Your task to perform on an android device: Go to internet settings Image 0: 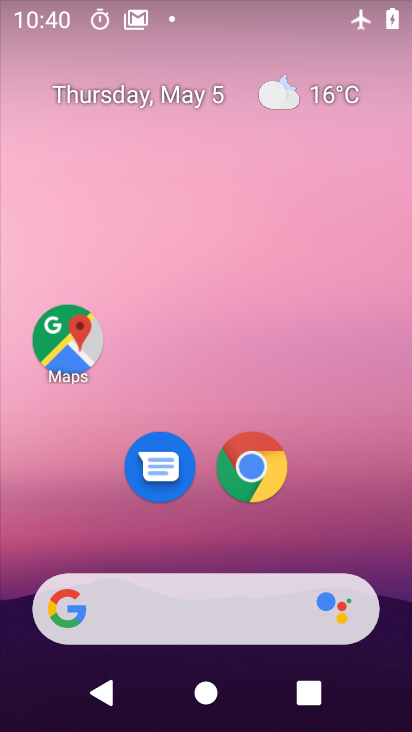
Step 0: drag from (219, 450) to (262, 25)
Your task to perform on an android device: Go to internet settings Image 1: 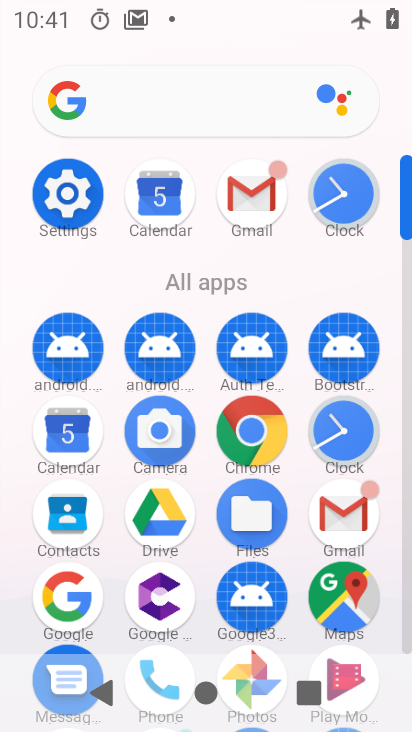
Step 1: click (67, 181)
Your task to perform on an android device: Go to internet settings Image 2: 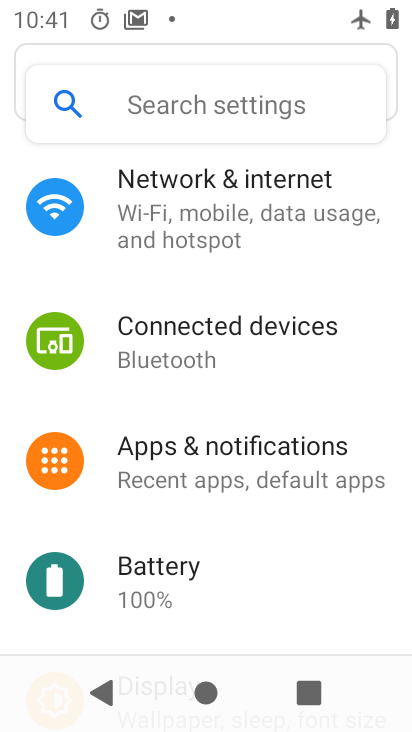
Step 2: click (219, 232)
Your task to perform on an android device: Go to internet settings Image 3: 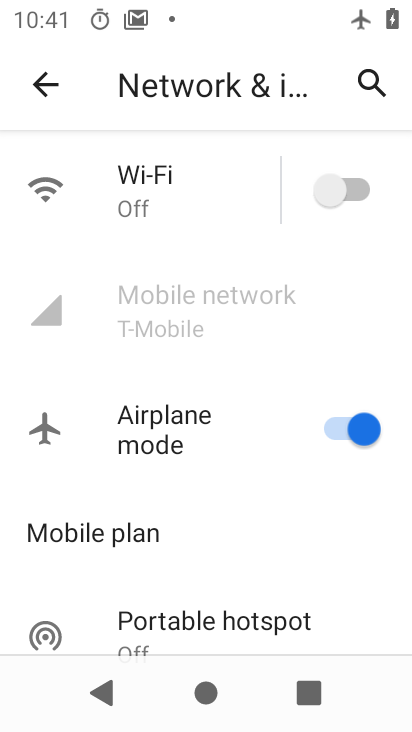
Step 3: task complete